Your task to perform on an android device: What is the recent news? Image 0: 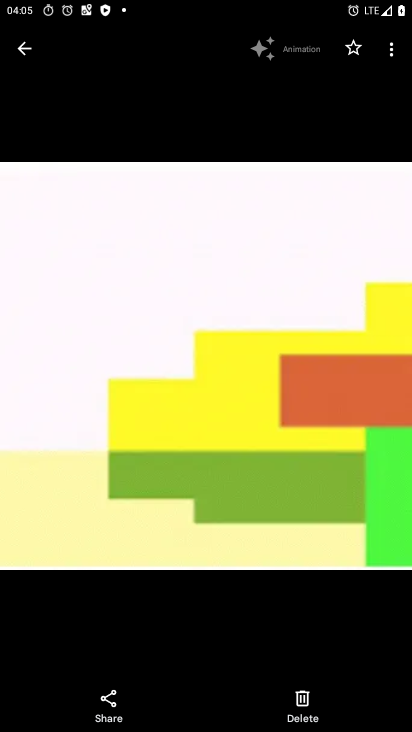
Step 0: press home button
Your task to perform on an android device: What is the recent news? Image 1: 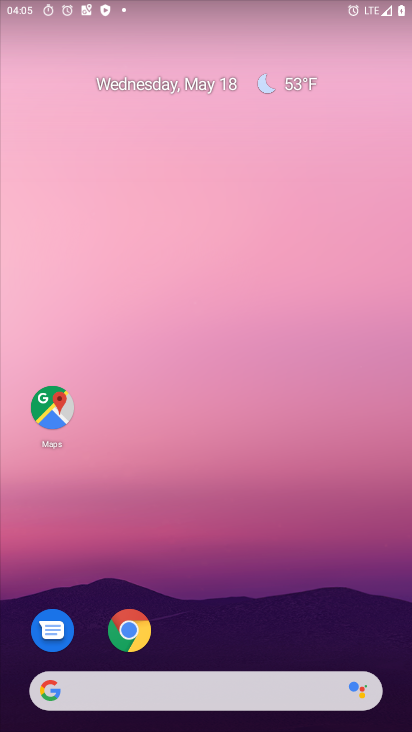
Step 1: task complete